Your task to perform on an android device: turn off improve location accuracy Image 0: 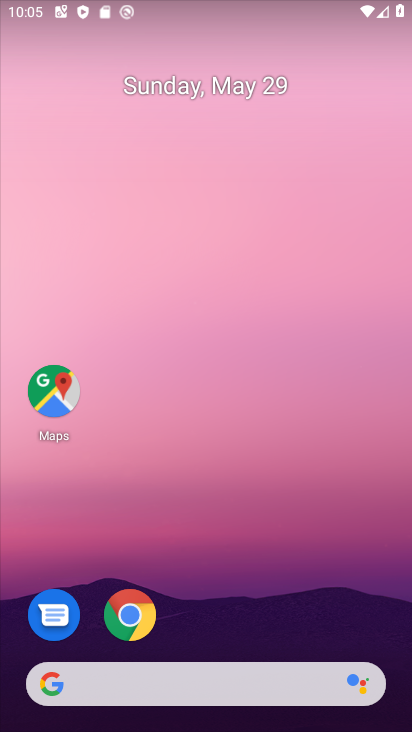
Step 0: drag from (200, 639) to (169, 21)
Your task to perform on an android device: turn off improve location accuracy Image 1: 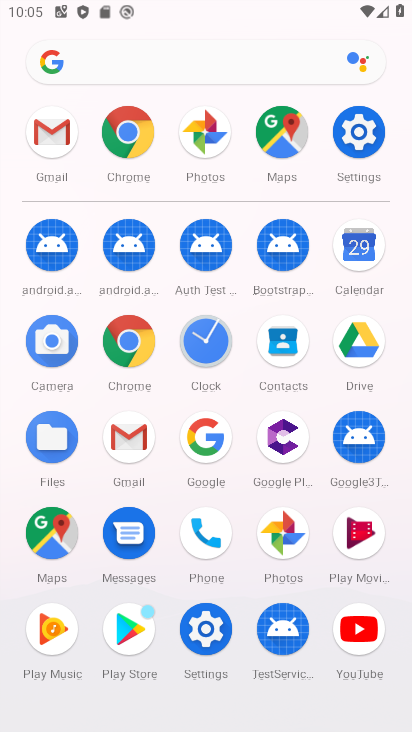
Step 1: click (203, 633)
Your task to perform on an android device: turn off improve location accuracy Image 2: 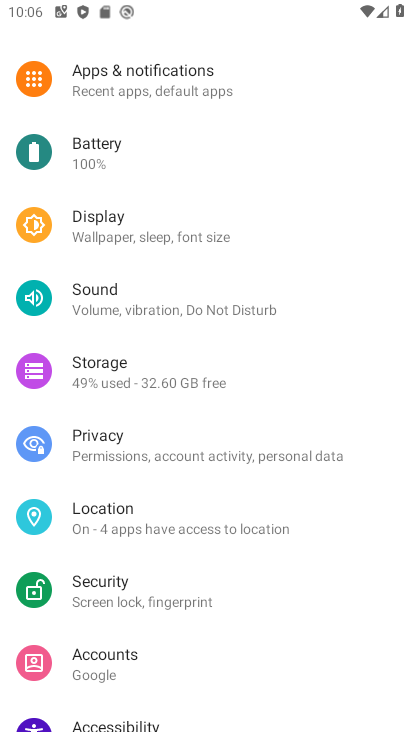
Step 2: click (101, 520)
Your task to perform on an android device: turn off improve location accuracy Image 3: 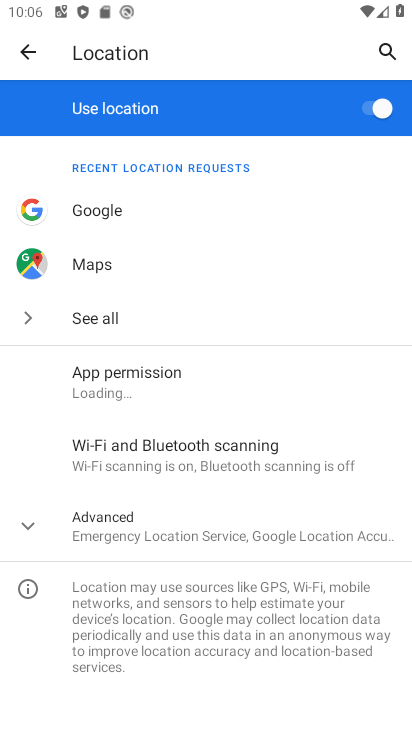
Step 3: click (206, 537)
Your task to perform on an android device: turn off improve location accuracy Image 4: 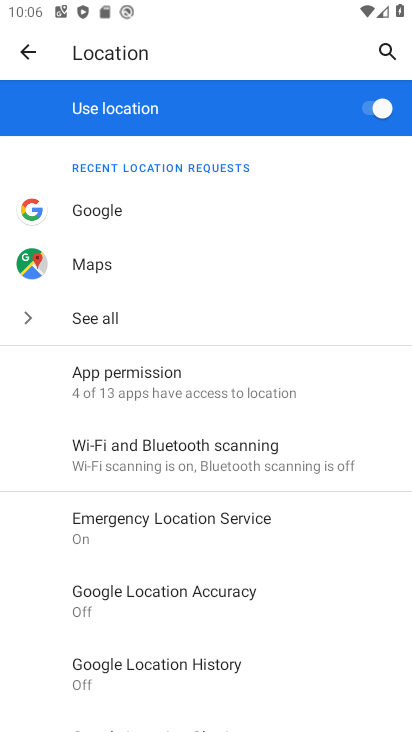
Step 4: click (211, 584)
Your task to perform on an android device: turn off improve location accuracy Image 5: 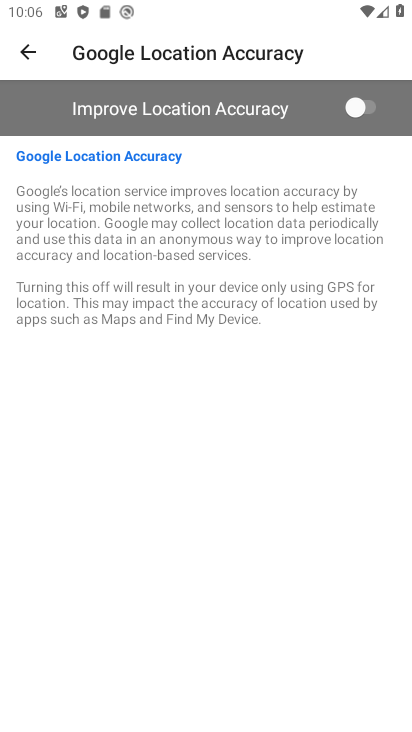
Step 5: task complete